Your task to perform on an android device: turn on bluetooth scan Image 0: 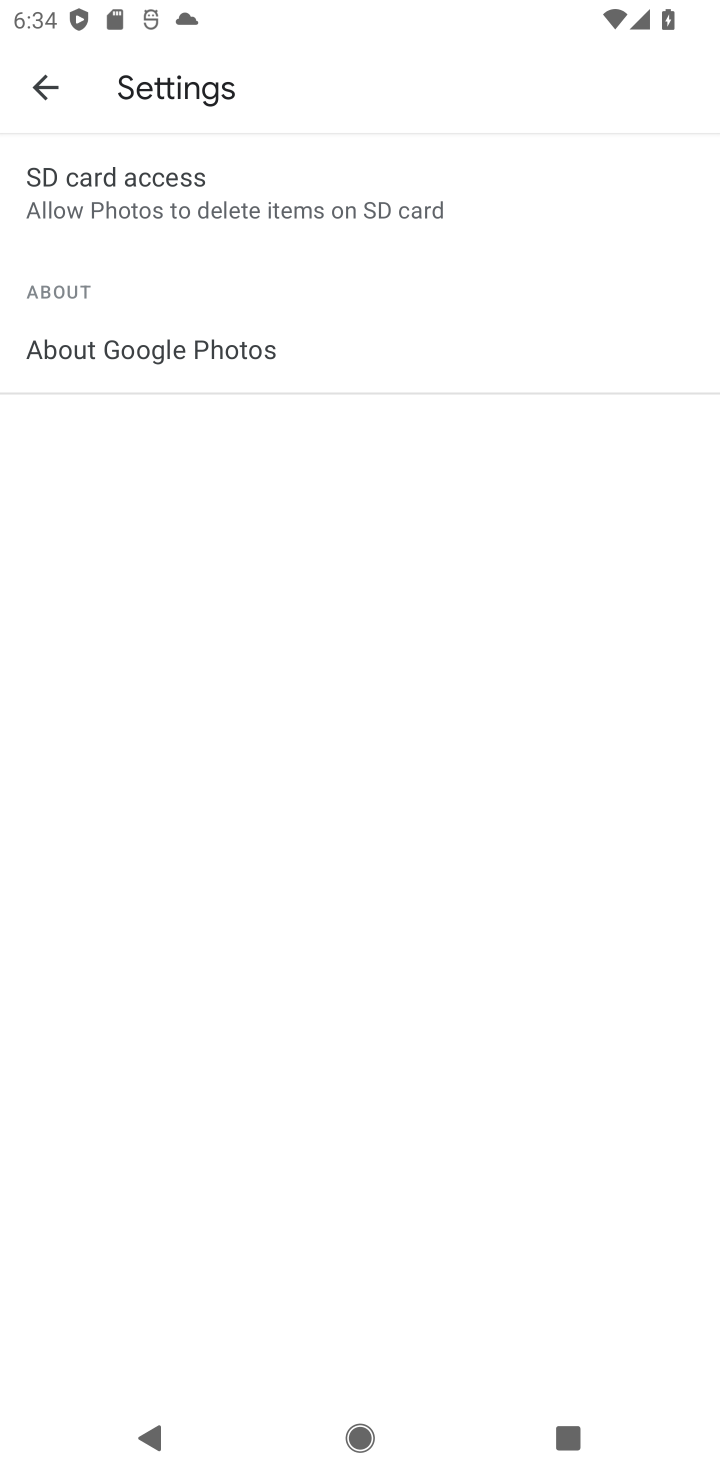
Step 0: press home button
Your task to perform on an android device: turn on bluetooth scan Image 1: 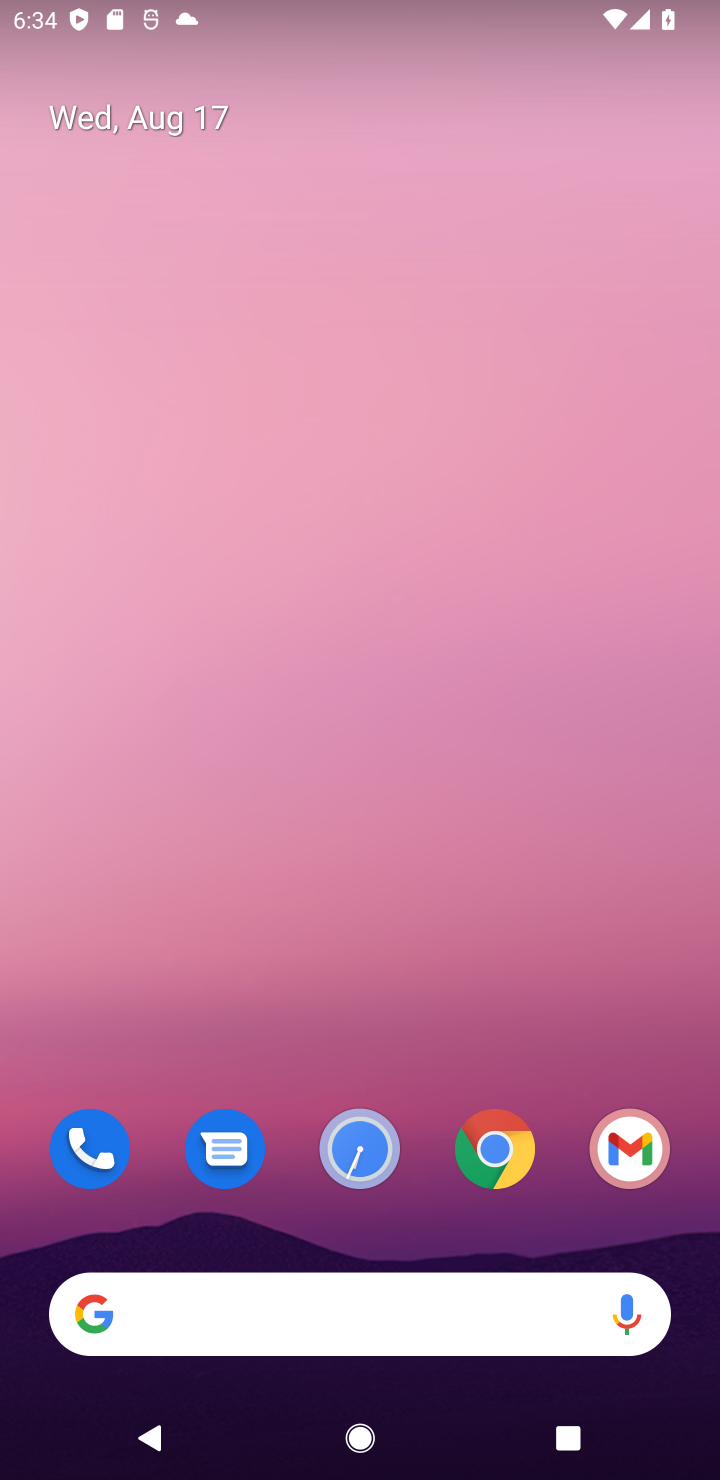
Step 1: drag from (459, 998) to (443, 123)
Your task to perform on an android device: turn on bluetooth scan Image 2: 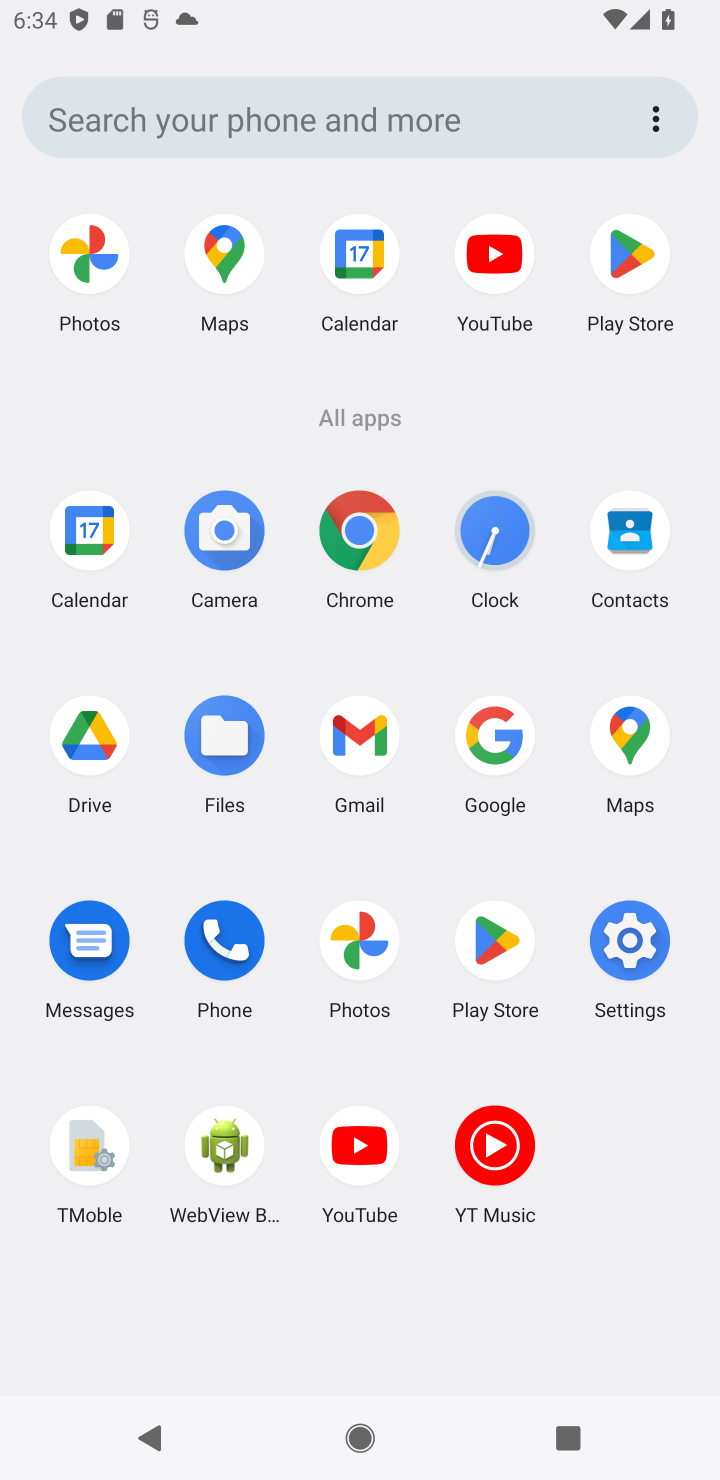
Step 2: click (631, 939)
Your task to perform on an android device: turn on bluetooth scan Image 3: 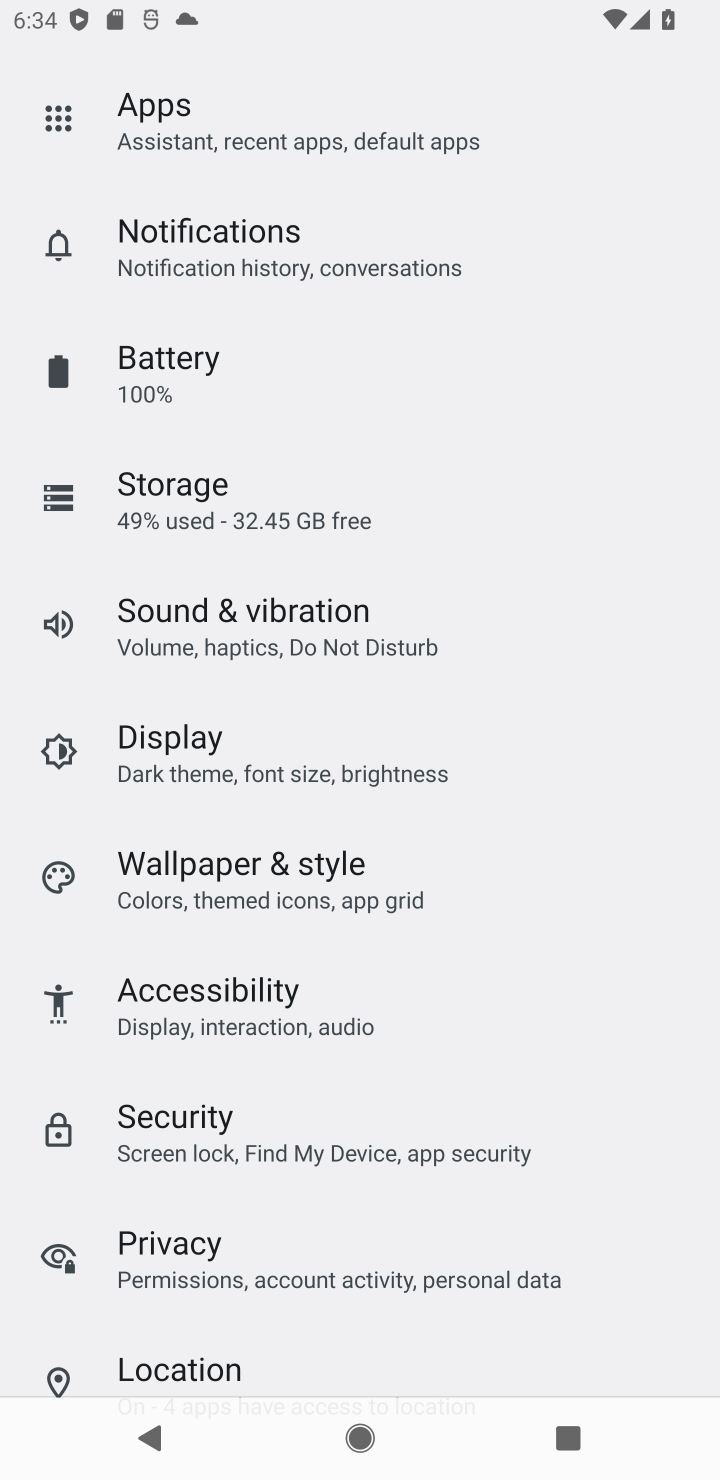
Step 3: click (180, 1365)
Your task to perform on an android device: turn on bluetooth scan Image 4: 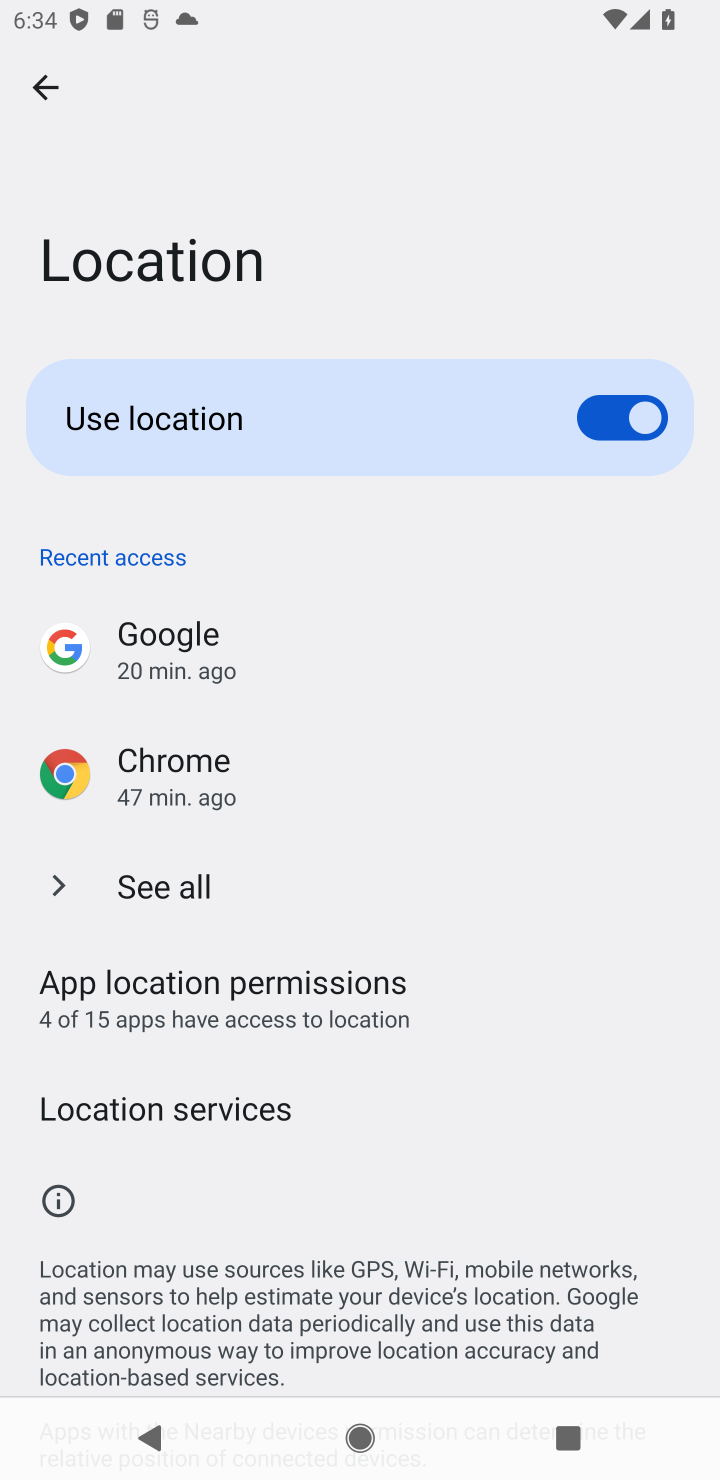
Step 4: click (197, 1099)
Your task to perform on an android device: turn on bluetooth scan Image 5: 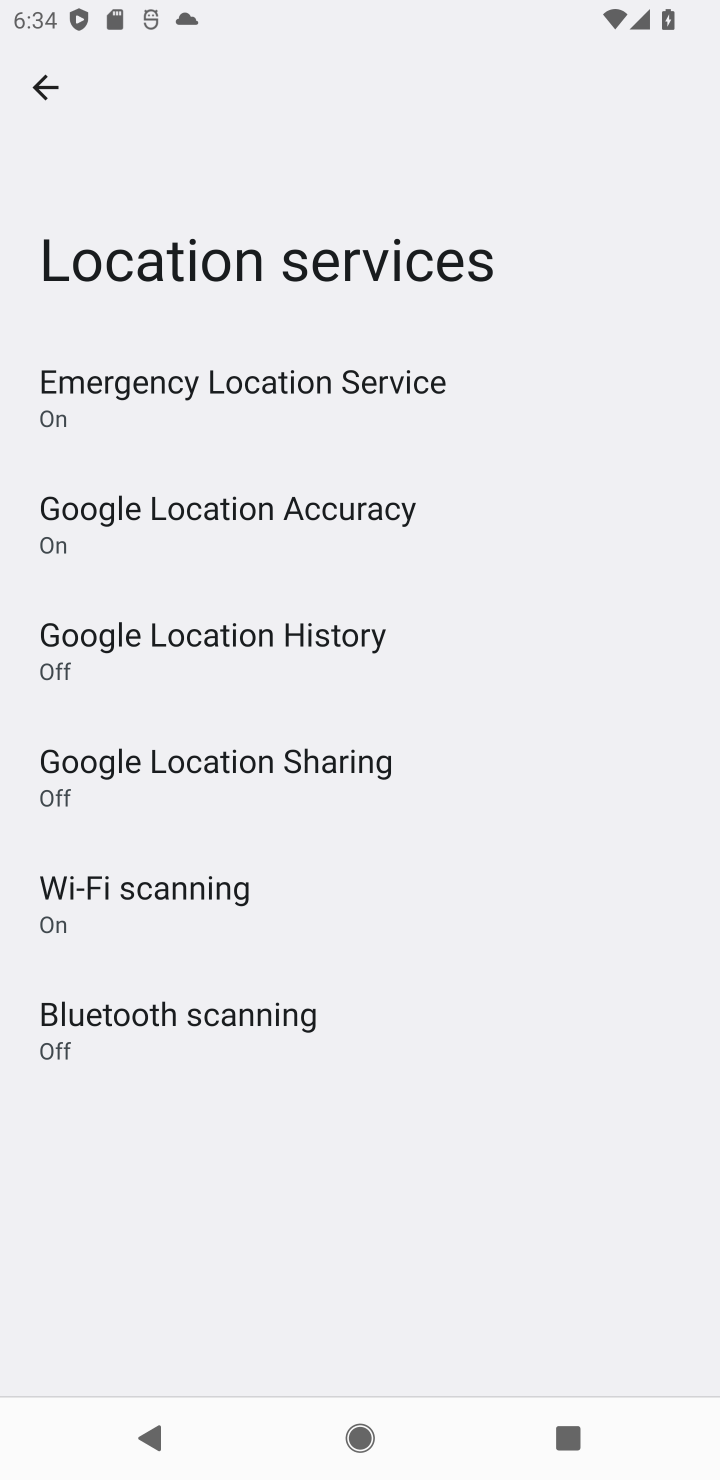
Step 5: click (207, 1020)
Your task to perform on an android device: turn on bluetooth scan Image 6: 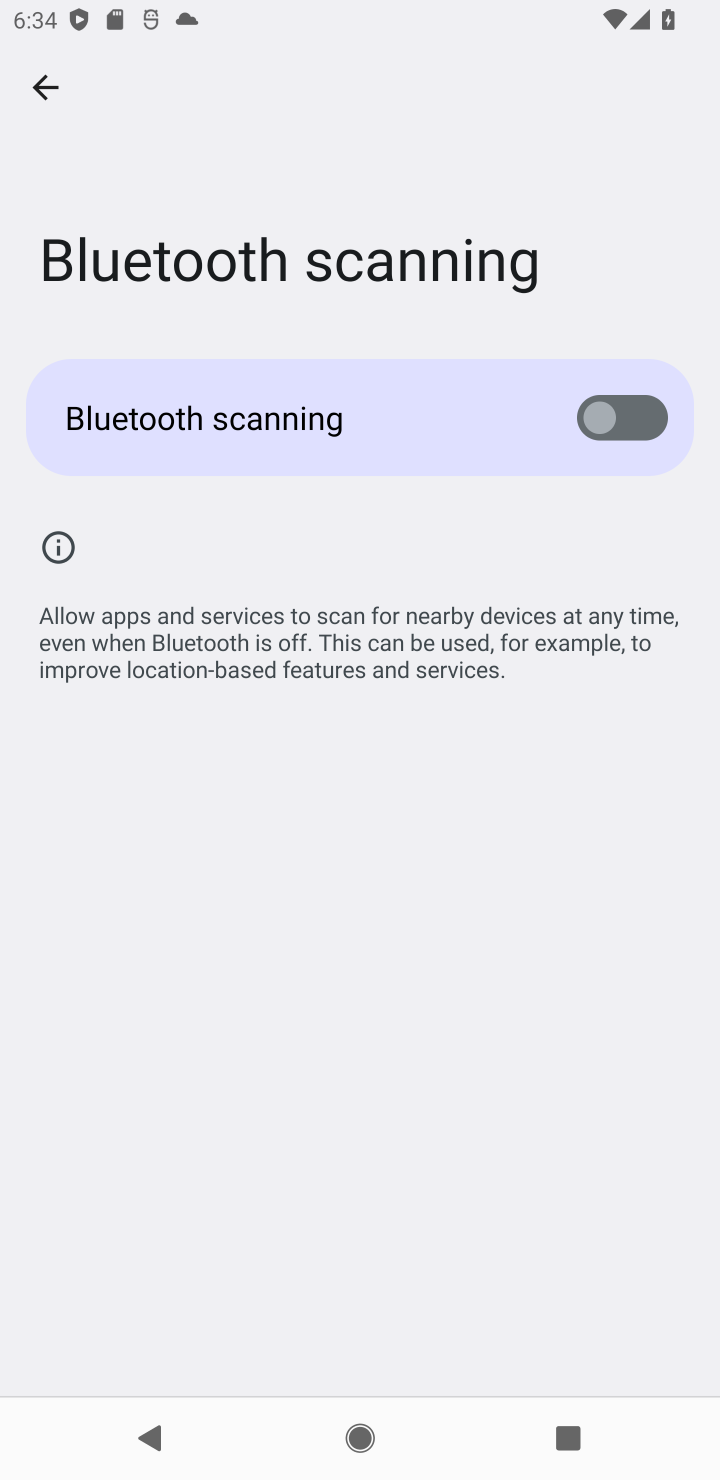
Step 6: click (607, 415)
Your task to perform on an android device: turn on bluetooth scan Image 7: 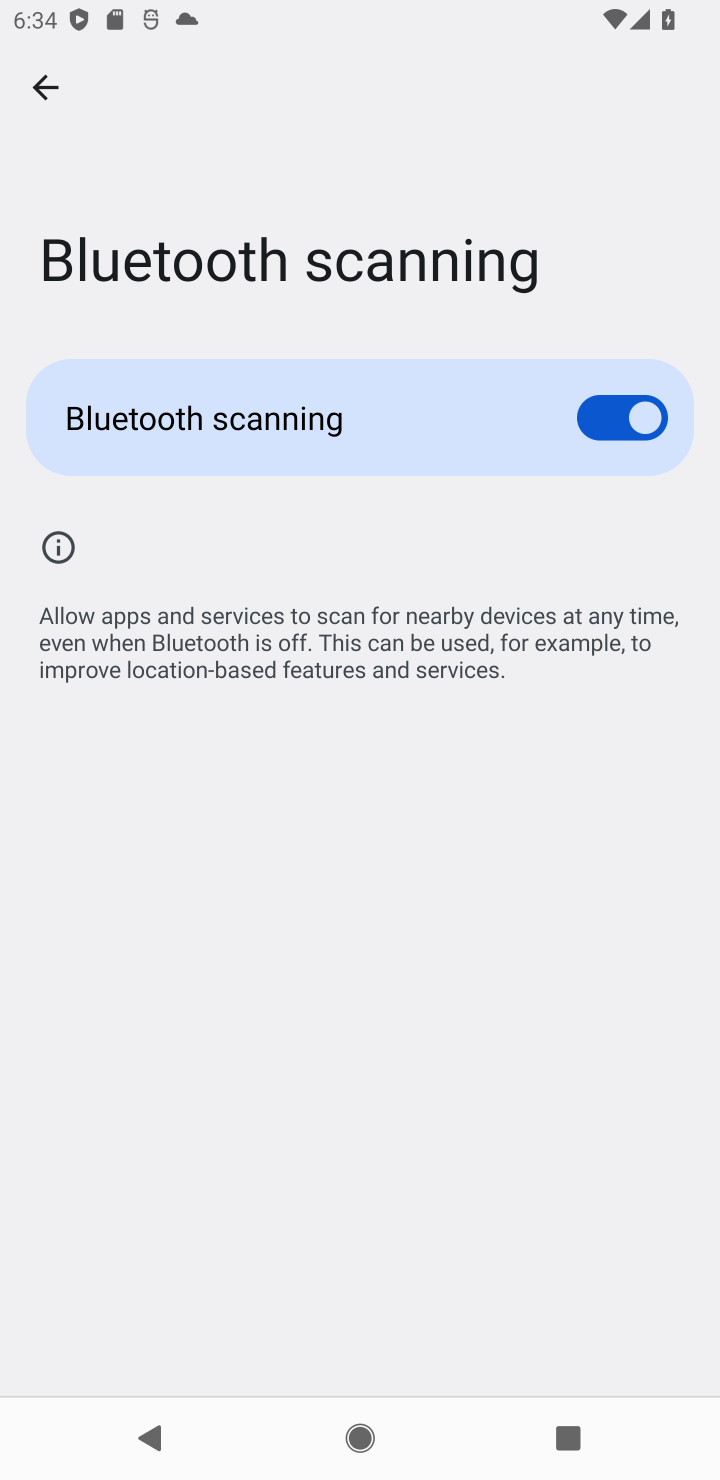
Step 7: task complete